Your task to perform on an android device: snooze an email in the gmail app Image 0: 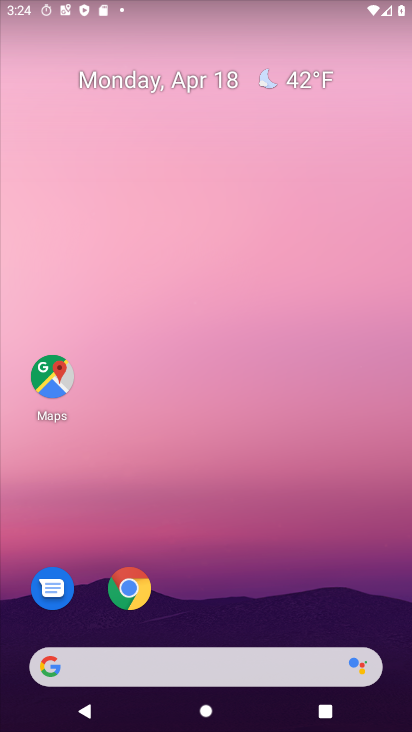
Step 0: drag from (241, 602) to (221, 126)
Your task to perform on an android device: snooze an email in the gmail app Image 1: 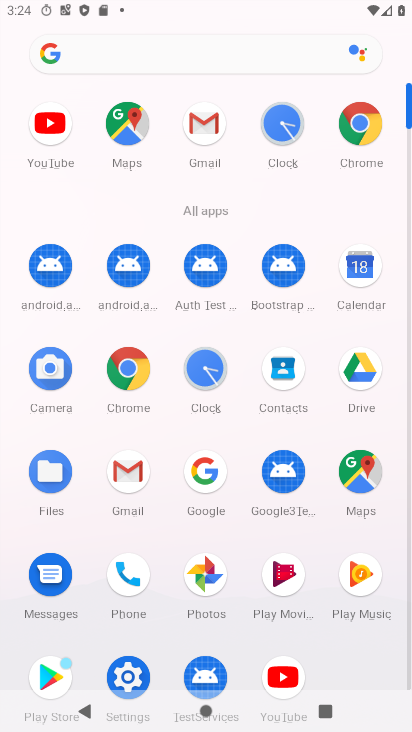
Step 1: click (207, 150)
Your task to perform on an android device: snooze an email in the gmail app Image 2: 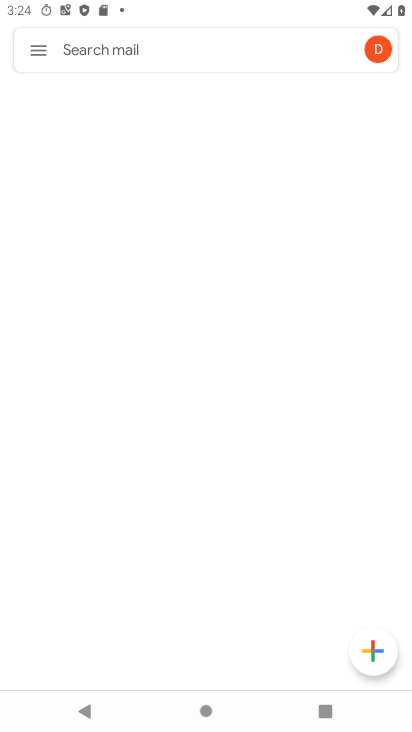
Step 2: click (40, 51)
Your task to perform on an android device: snooze an email in the gmail app Image 3: 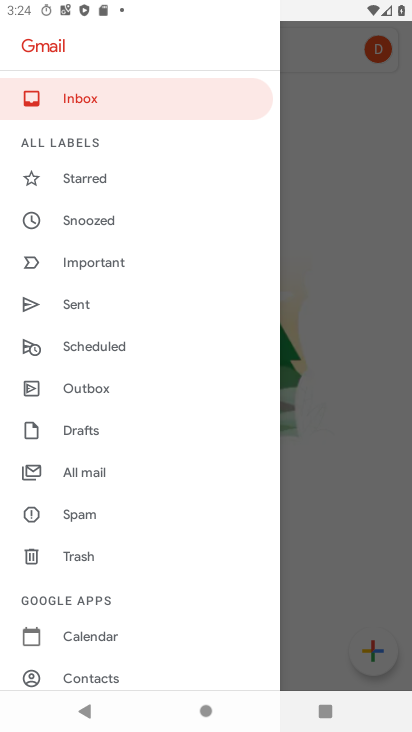
Step 3: click (106, 473)
Your task to perform on an android device: snooze an email in the gmail app Image 4: 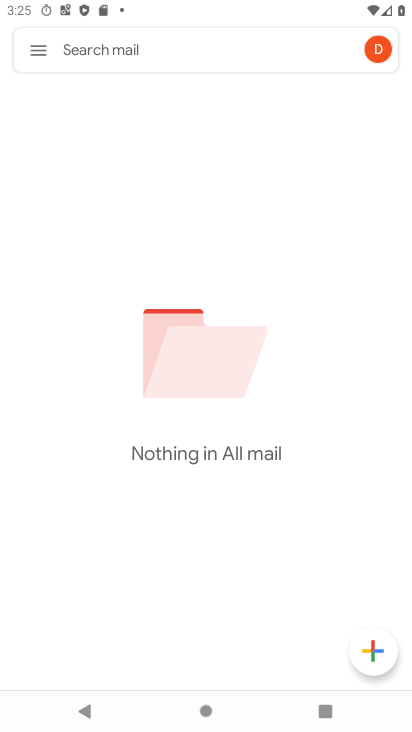
Step 4: task complete